Your task to perform on an android device: Go to battery settings Image 0: 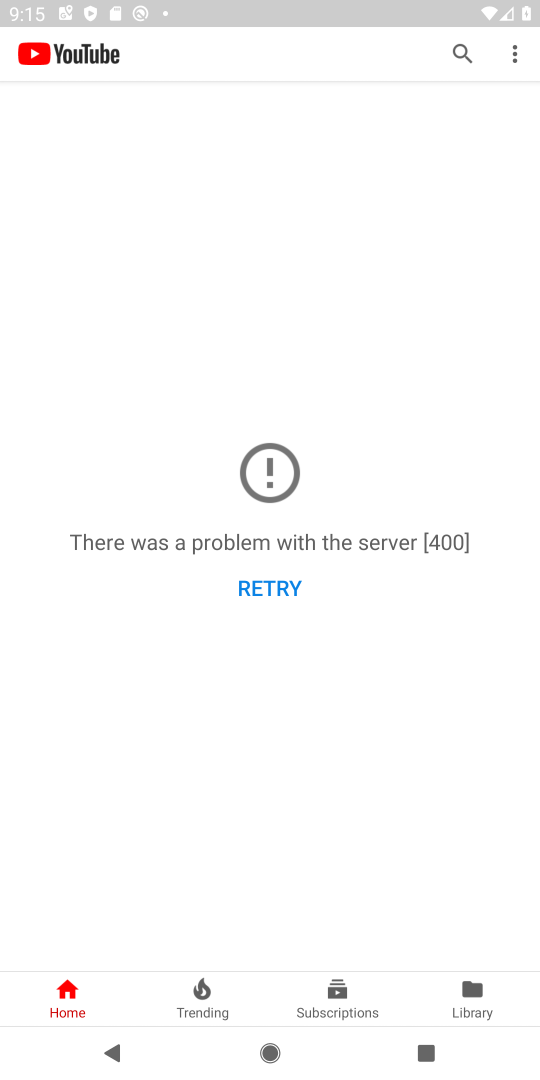
Step 0: press home button
Your task to perform on an android device: Go to battery settings Image 1: 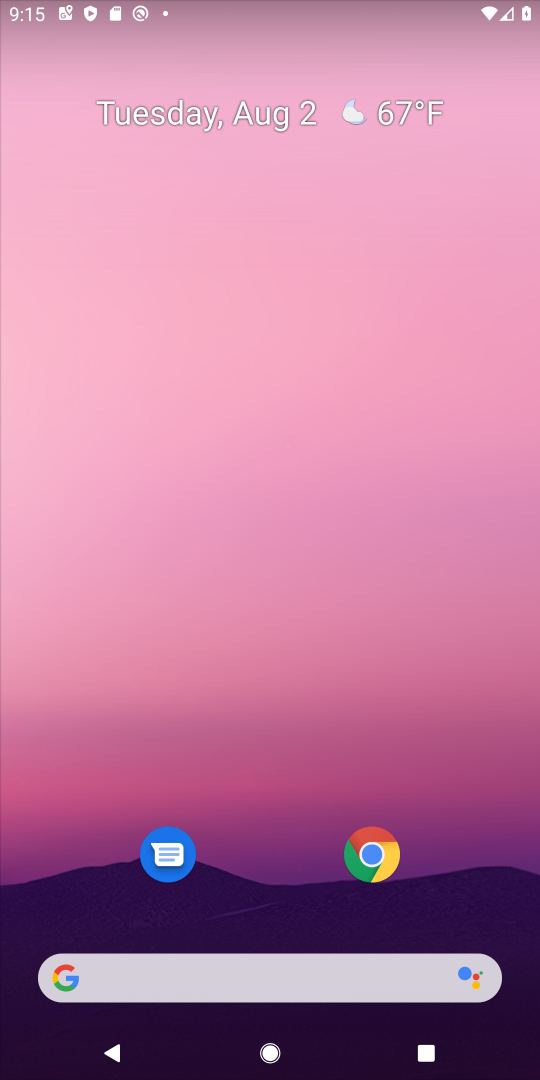
Step 1: drag from (292, 949) to (292, 81)
Your task to perform on an android device: Go to battery settings Image 2: 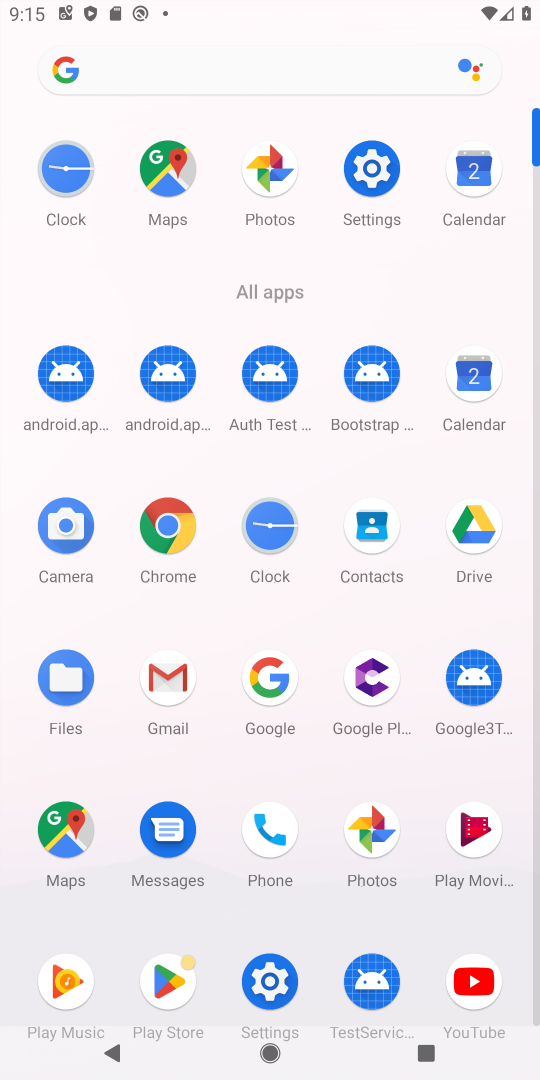
Step 2: click (364, 170)
Your task to perform on an android device: Go to battery settings Image 3: 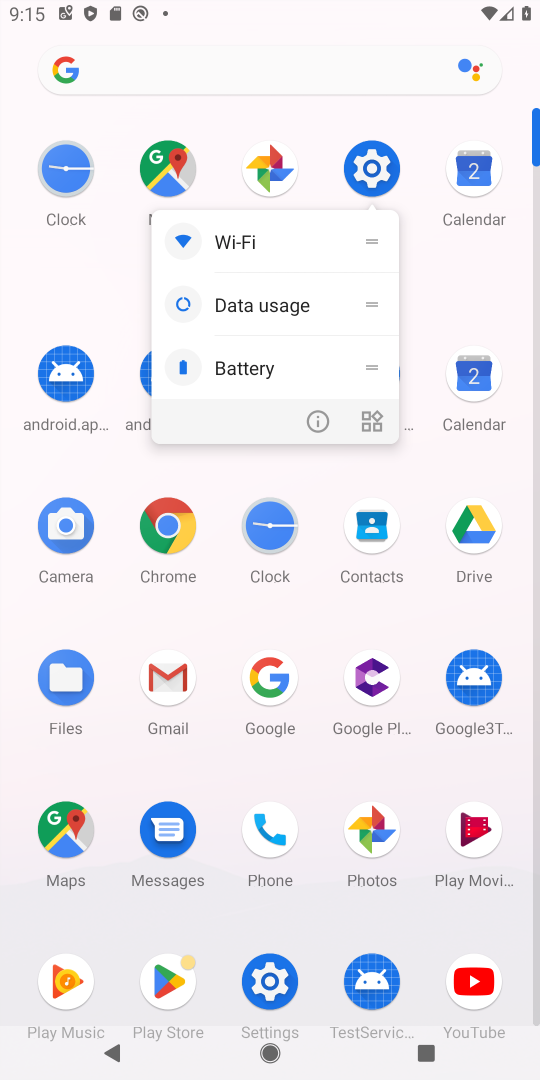
Step 3: click (284, 980)
Your task to perform on an android device: Go to battery settings Image 4: 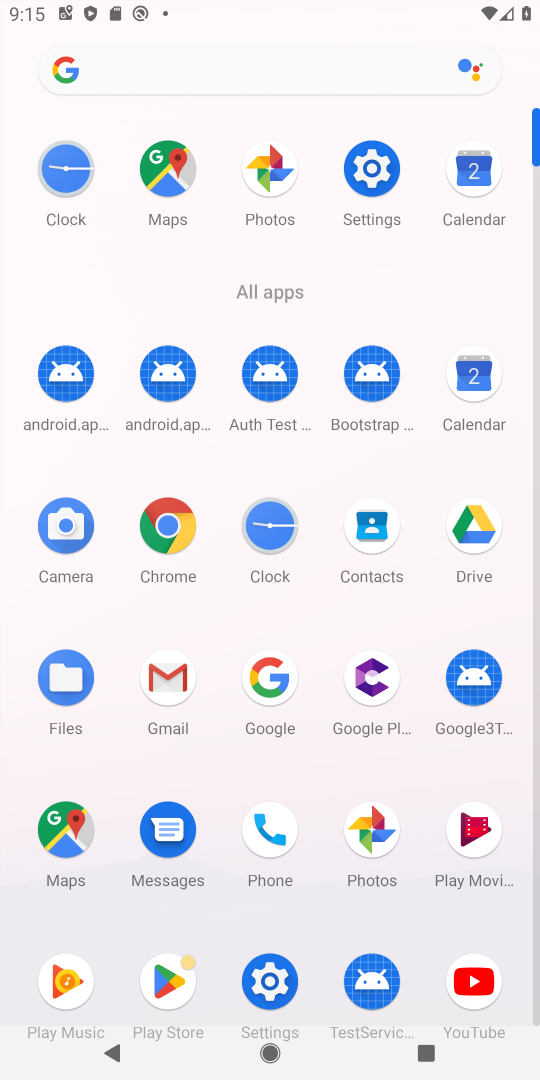
Step 4: click (288, 976)
Your task to perform on an android device: Go to battery settings Image 5: 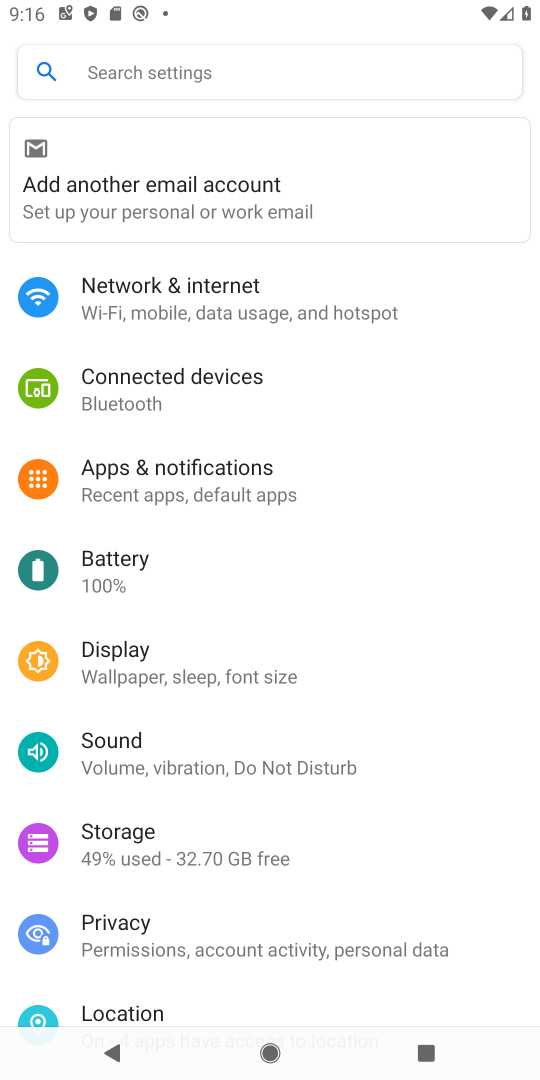
Step 5: click (78, 558)
Your task to perform on an android device: Go to battery settings Image 6: 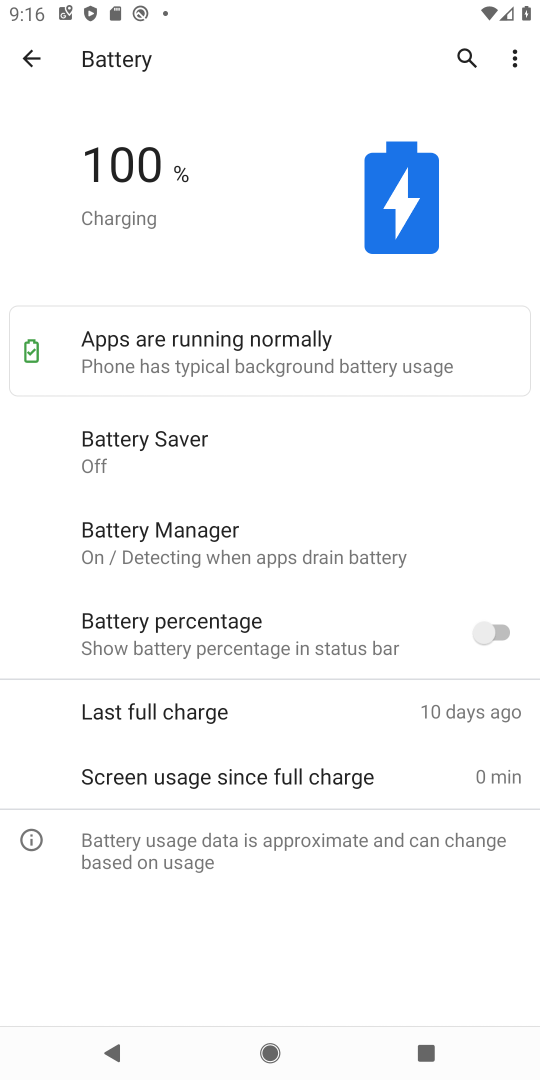
Step 6: task complete